Your task to perform on an android device: Show me the alarms in the clock app Image 0: 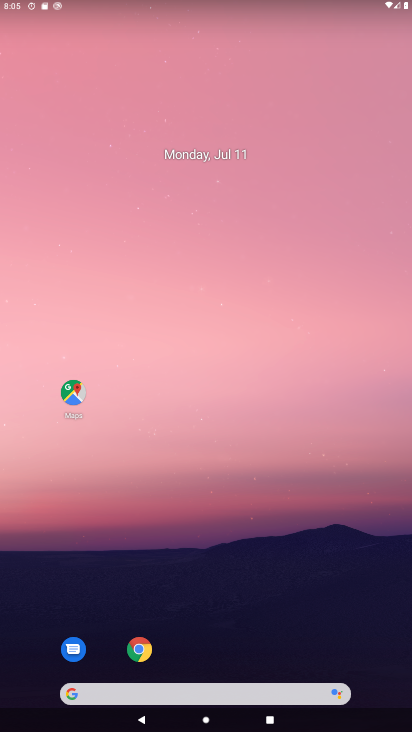
Step 0: drag from (234, 646) to (315, 6)
Your task to perform on an android device: Show me the alarms in the clock app Image 1: 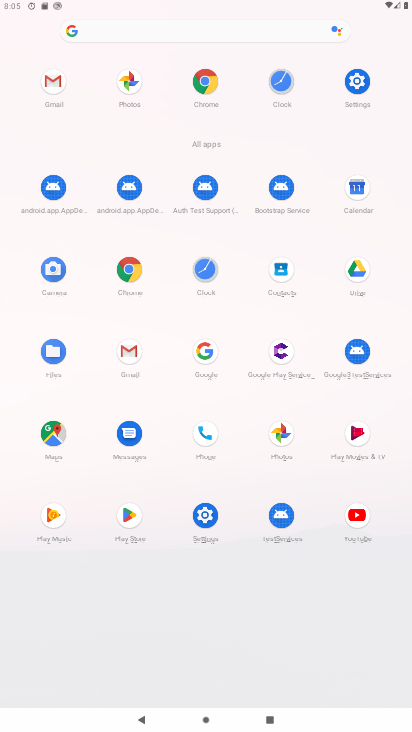
Step 1: click (275, 80)
Your task to perform on an android device: Show me the alarms in the clock app Image 2: 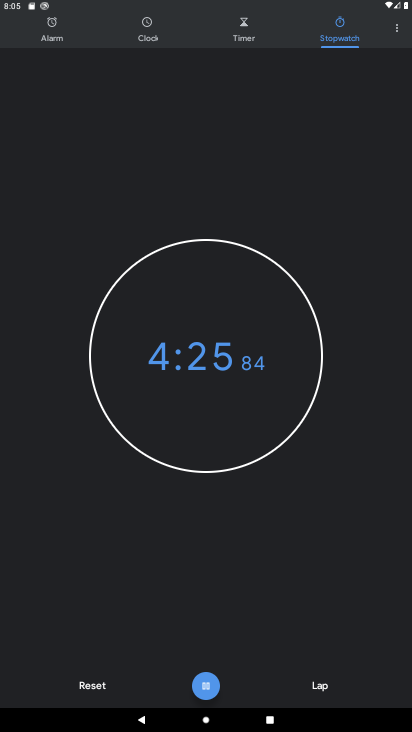
Step 2: click (35, 22)
Your task to perform on an android device: Show me the alarms in the clock app Image 3: 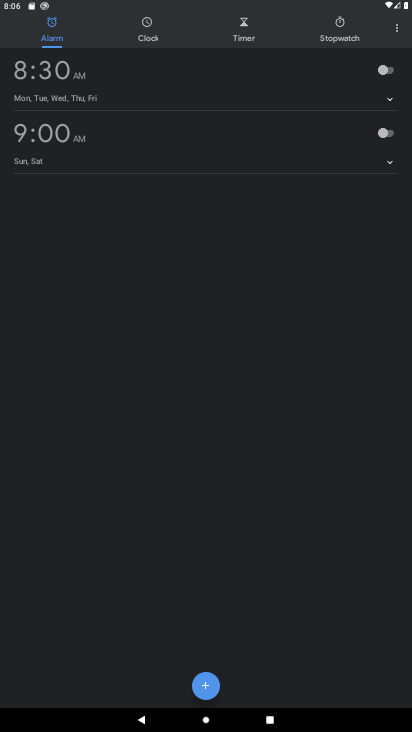
Step 3: task complete